Your task to perform on an android device: Open CNN.com Image 0: 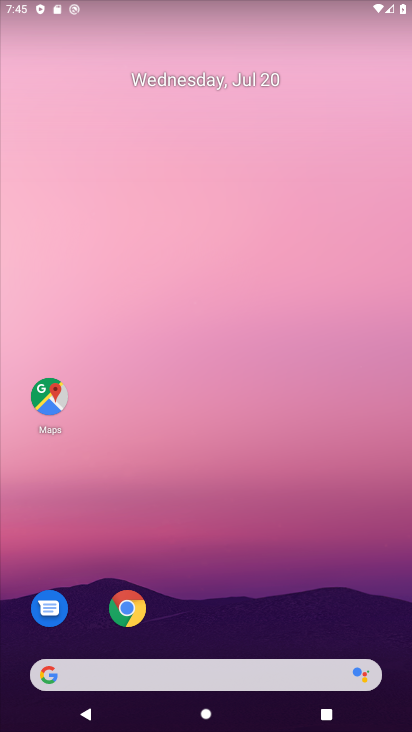
Step 0: drag from (243, 632) to (214, 171)
Your task to perform on an android device: Open CNN.com Image 1: 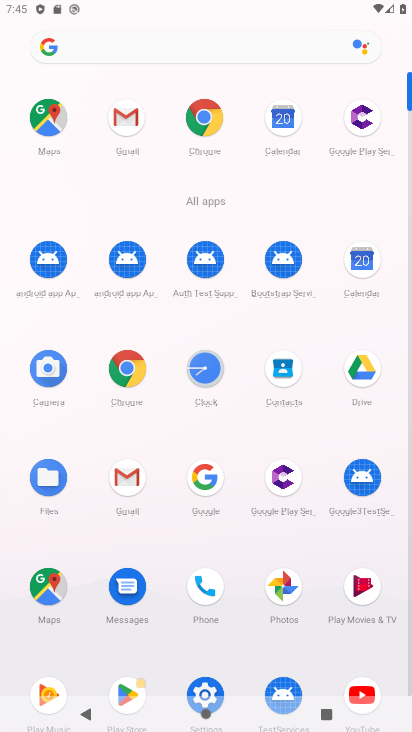
Step 1: click (207, 117)
Your task to perform on an android device: Open CNN.com Image 2: 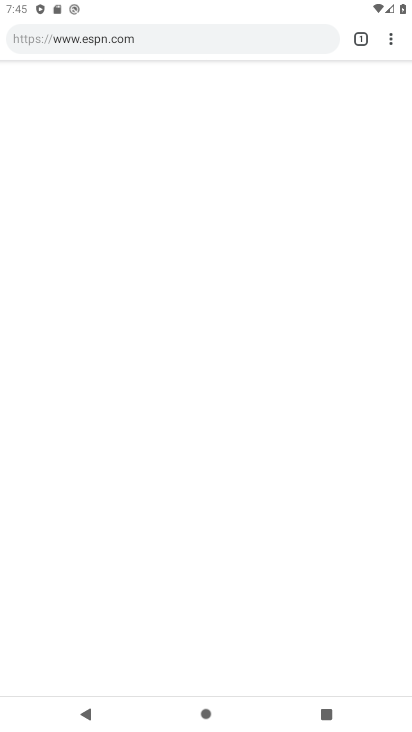
Step 2: click (166, 45)
Your task to perform on an android device: Open CNN.com Image 3: 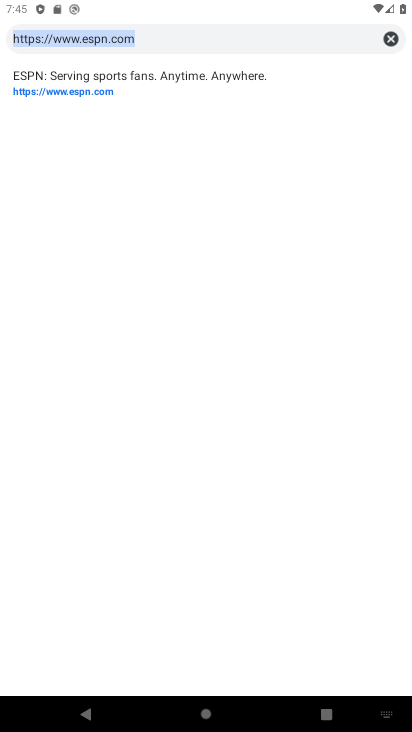
Step 3: type "cnn.com"
Your task to perform on an android device: Open CNN.com Image 4: 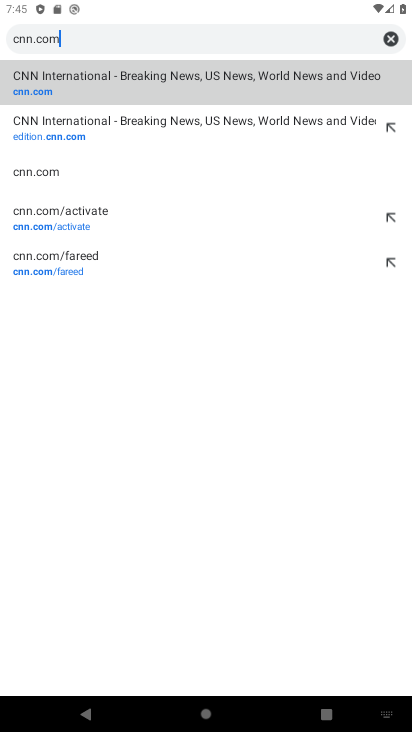
Step 4: click (30, 77)
Your task to perform on an android device: Open CNN.com Image 5: 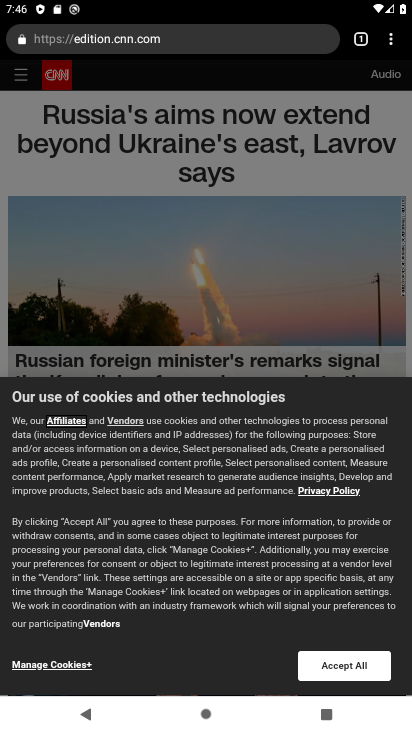
Step 5: task complete